Your task to perform on an android device: Open Google Image 0: 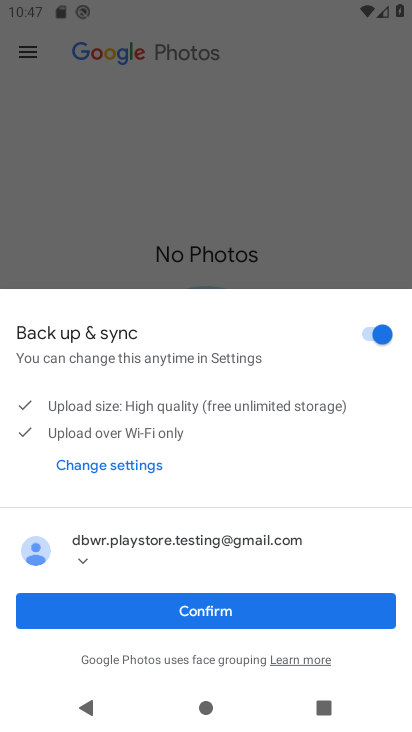
Step 0: press home button
Your task to perform on an android device: Open Google Image 1: 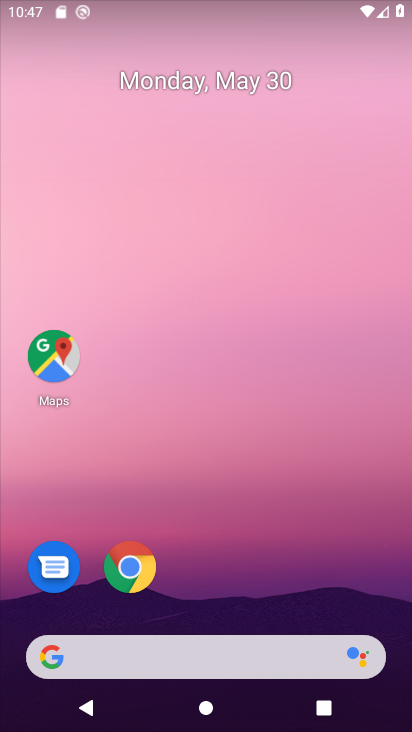
Step 1: drag from (159, 637) to (159, 260)
Your task to perform on an android device: Open Google Image 2: 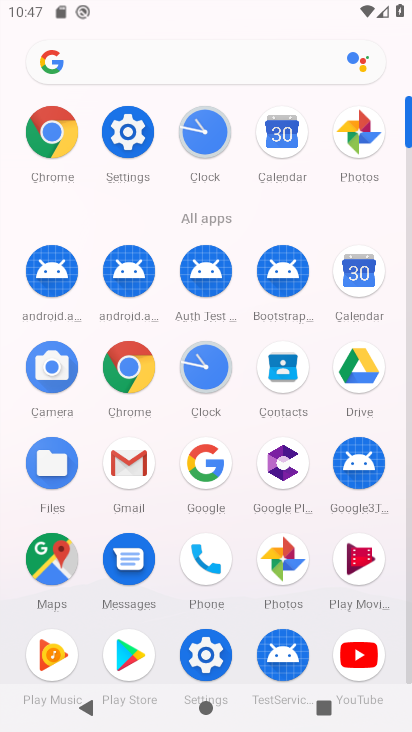
Step 2: click (207, 474)
Your task to perform on an android device: Open Google Image 3: 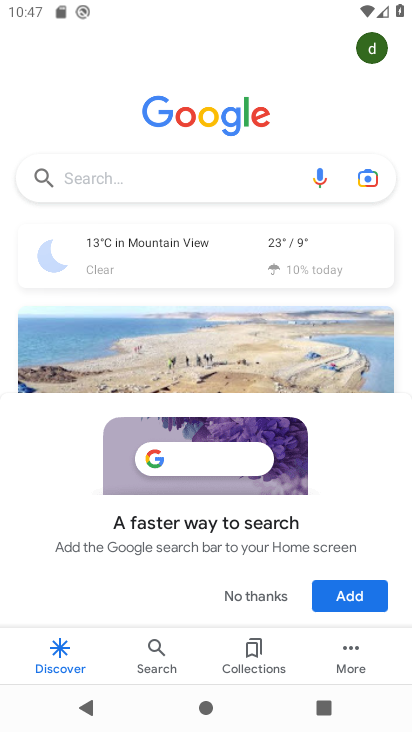
Step 3: task complete